Your task to perform on an android device: turn on showing notifications on the lock screen Image 0: 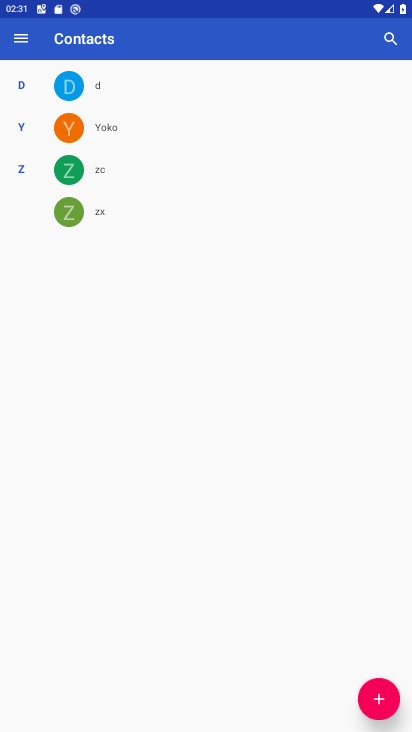
Step 0: press home button
Your task to perform on an android device: turn on showing notifications on the lock screen Image 1: 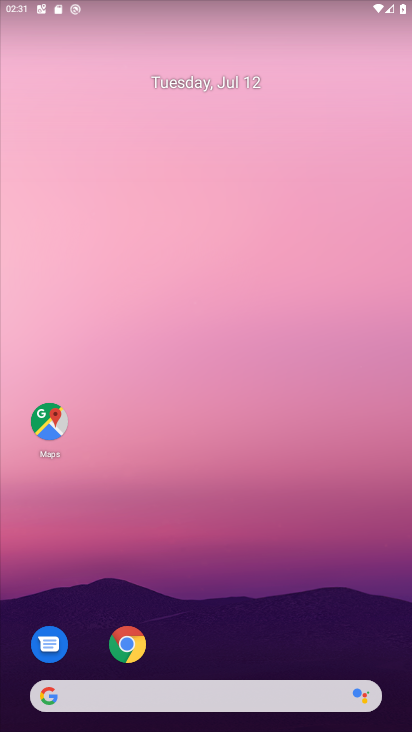
Step 1: drag from (203, 663) to (139, 129)
Your task to perform on an android device: turn on showing notifications on the lock screen Image 2: 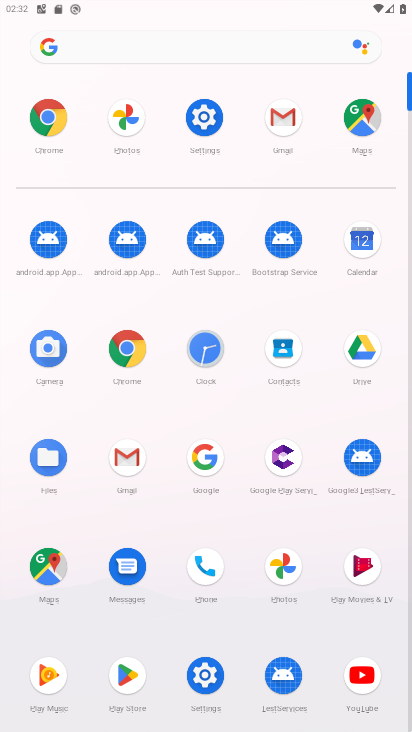
Step 2: click (197, 120)
Your task to perform on an android device: turn on showing notifications on the lock screen Image 3: 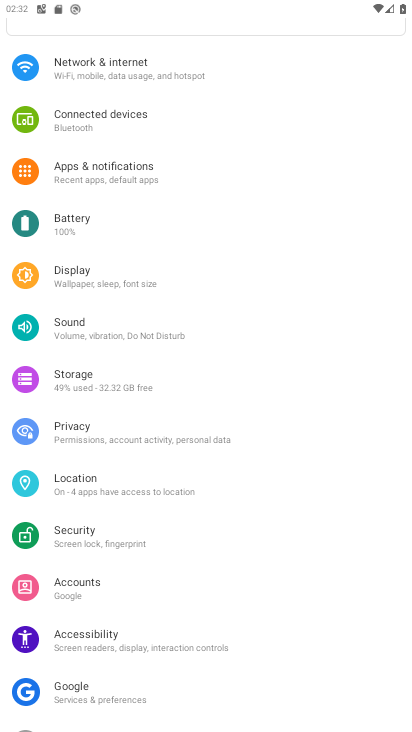
Step 3: click (71, 179)
Your task to perform on an android device: turn on showing notifications on the lock screen Image 4: 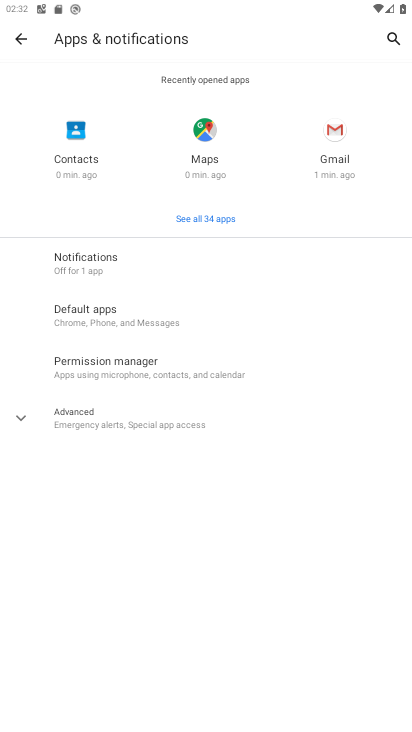
Step 4: click (90, 250)
Your task to perform on an android device: turn on showing notifications on the lock screen Image 5: 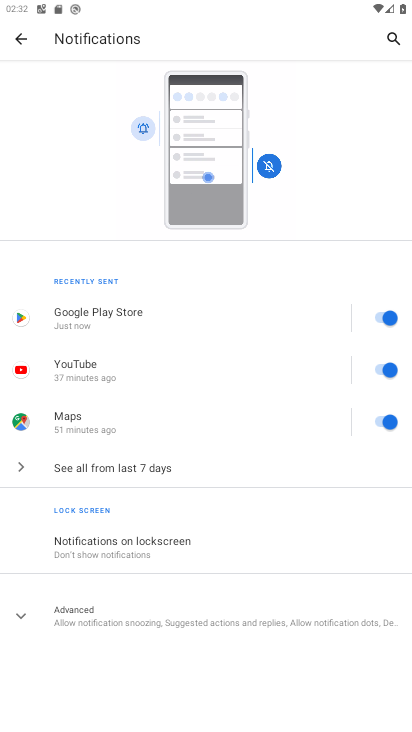
Step 5: click (211, 548)
Your task to perform on an android device: turn on showing notifications on the lock screen Image 6: 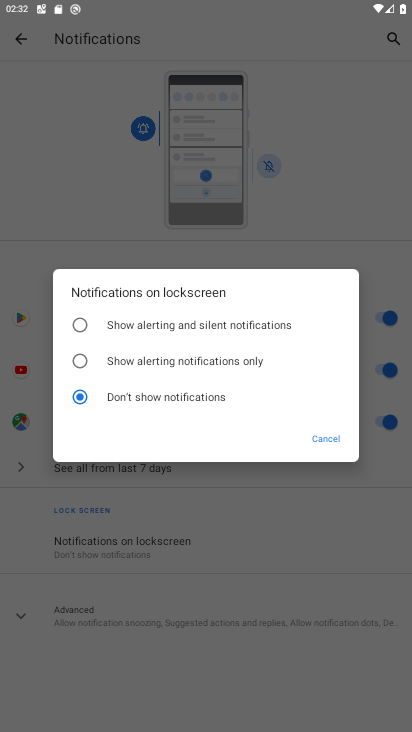
Step 6: click (114, 325)
Your task to perform on an android device: turn on showing notifications on the lock screen Image 7: 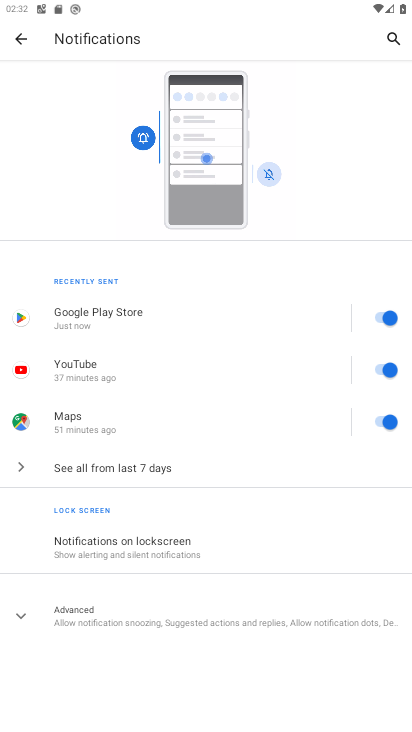
Step 7: task complete